Your task to perform on an android device: Go to Google maps Image 0: 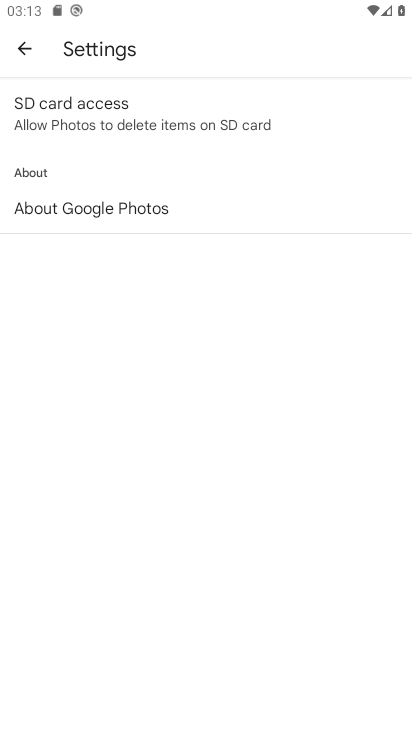
Step 0: press back button
Your task to perform on an android device: Go to Google maps Image 1: 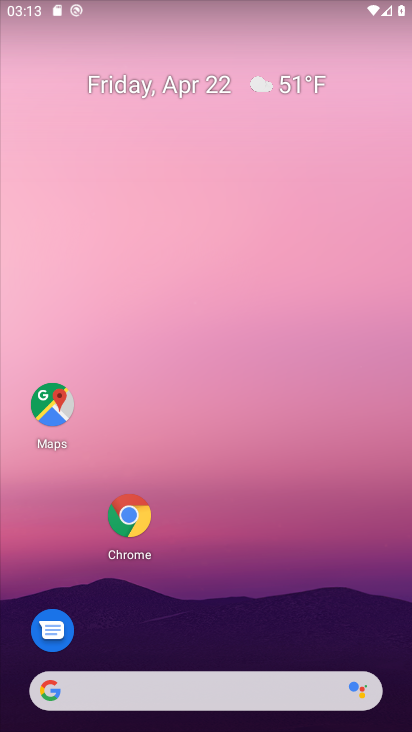
Step 1: click (359, 215)
Your task to perform on an android device: Go to Google maps Image 2: 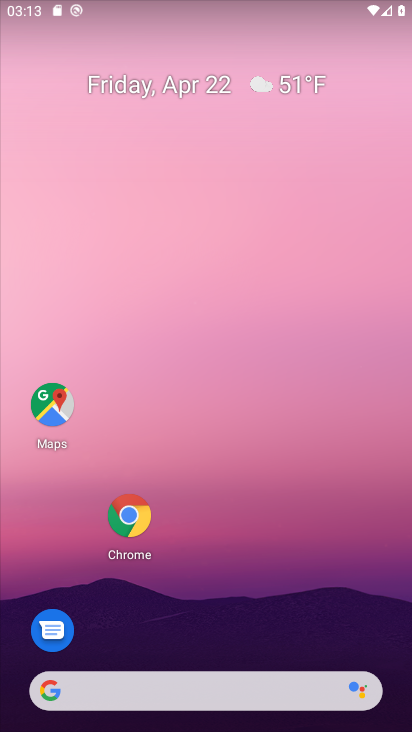
Step 2: click (51, 393)
Your task to perform on an android device: Go to Google maps Image 3: 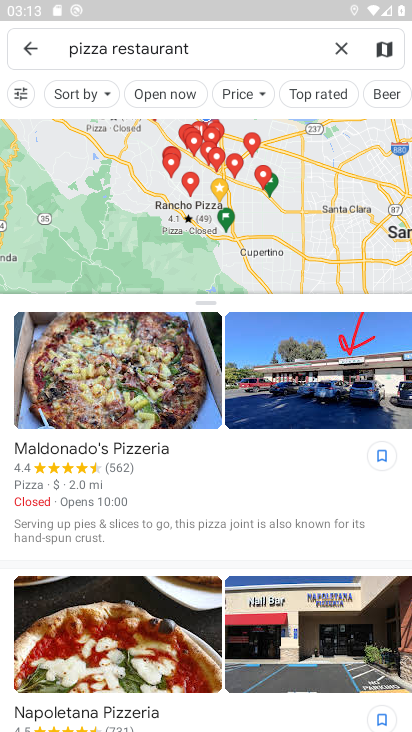
Step 3: click (341, 39)
Your task to perform on an android device: Go to Google maps Image 4: 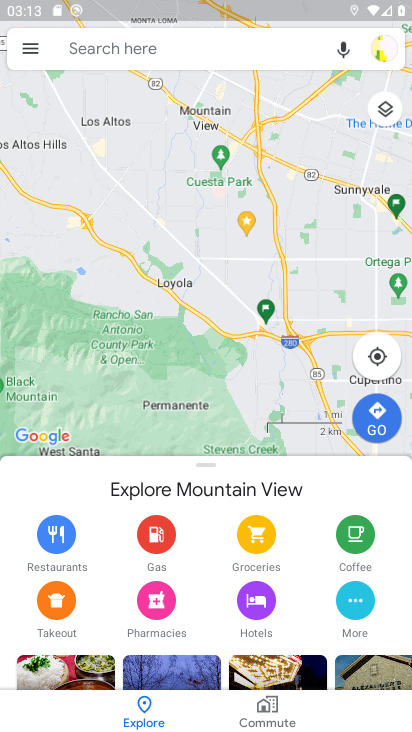
Step 4: click (106, 34)
Your task to perform on an android device: Go to Google maps Image 5: 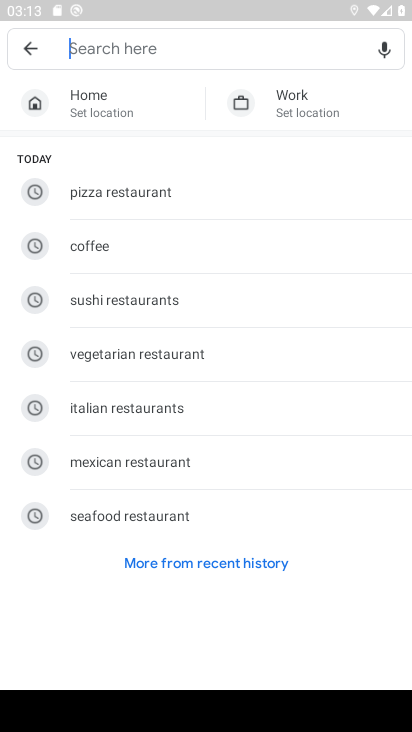
Step 5: task complete